Your task to perform on an android device: Open maps Image 0: 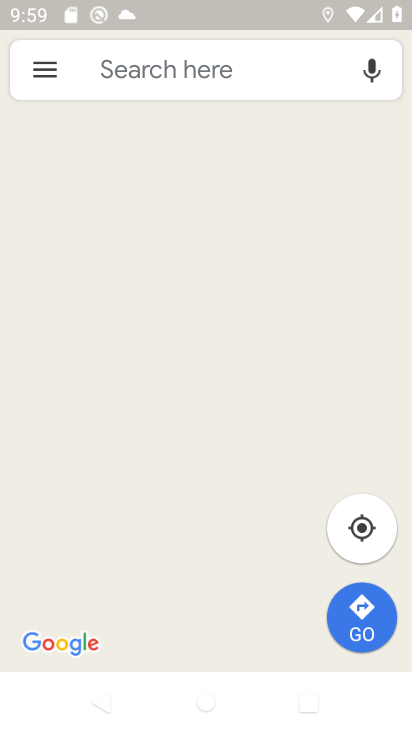
Step 0: press home button
Your task to perform on an android device: Open maps Image 1: 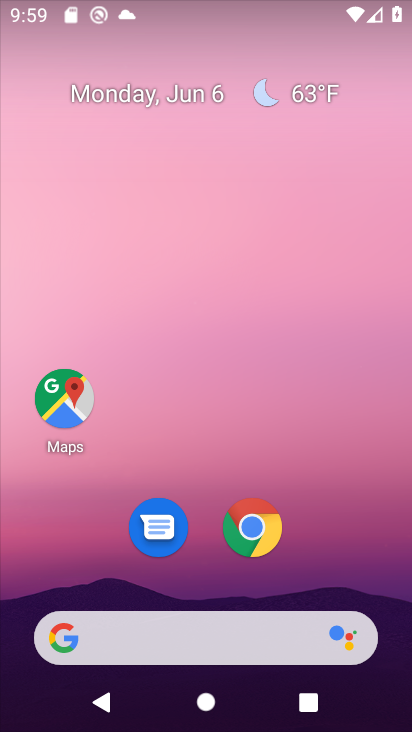
Step 1: click (59, 398)
Your task to perform on an android device: Open maps Image 2: 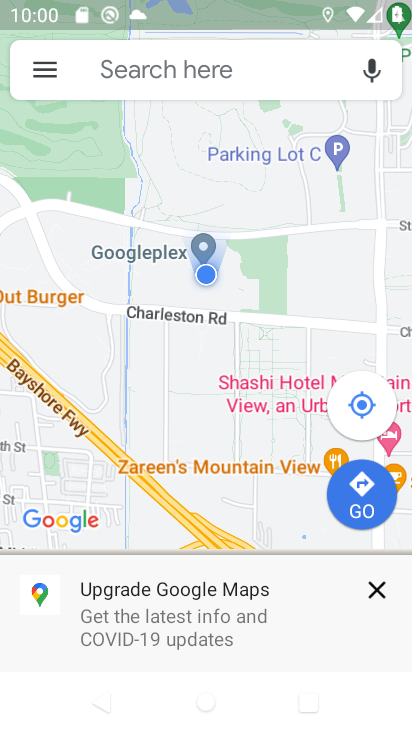
Step 2: task complete